Your task to perform on an android device: Open network settings Image 0: 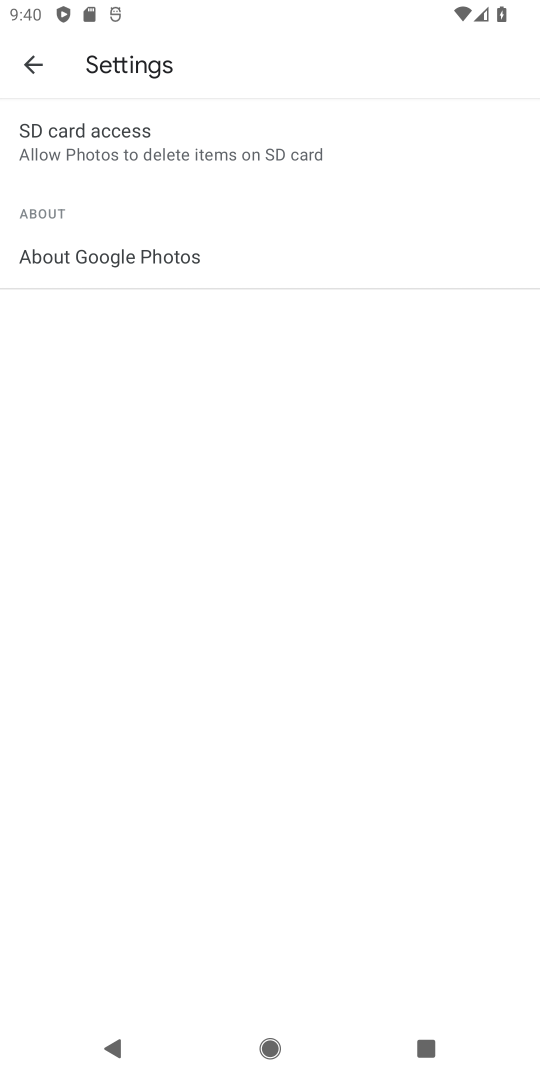
Step 0: press home button
Your task to perform on an android device: Open network settings Image 1: 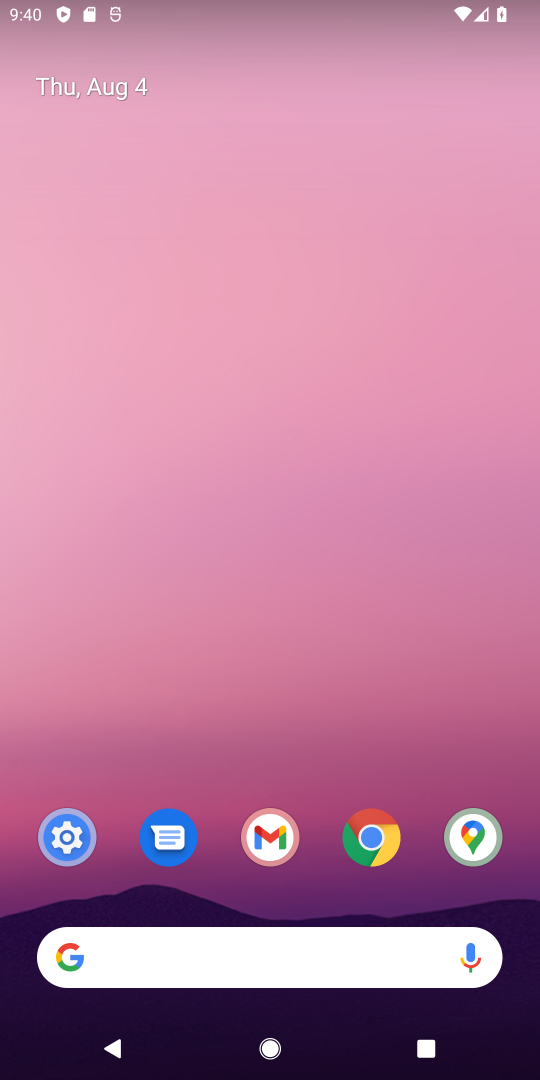
Step 1: drag from (418, 830) to (251, 108)
Your task to perform on an android device: Open network settings Image 2: 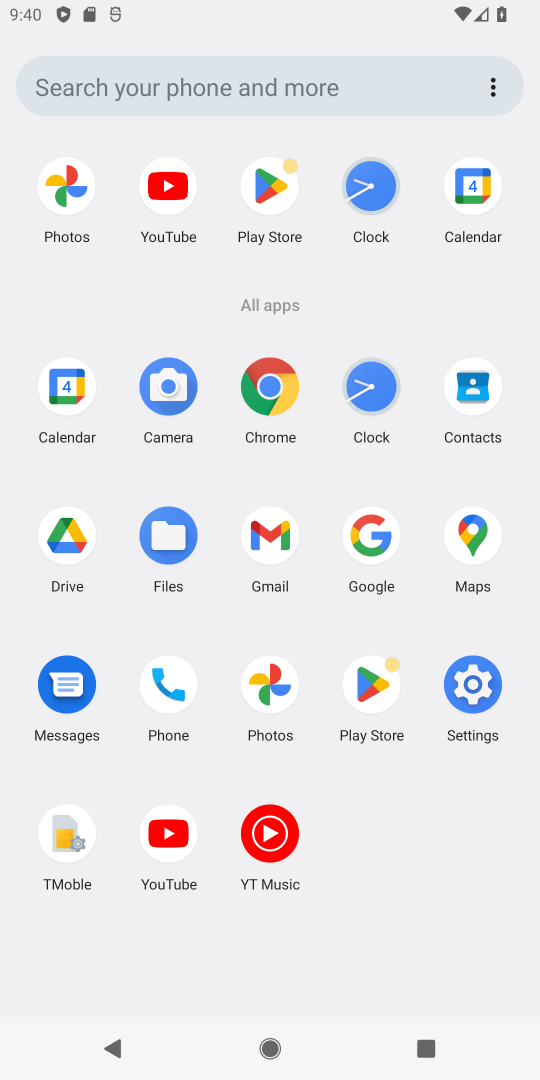
Step 2: click (496, 693)
Your task to perform on an android device: Open network settings Image 3: 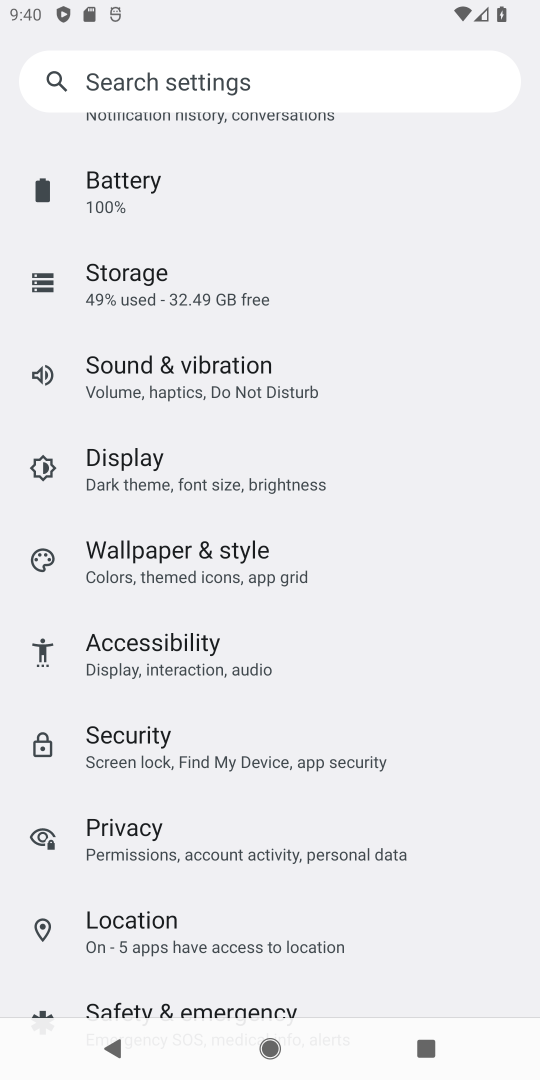
Step 3: drag from (334, 239) to (317, 820)
Your task to perform on an android device: Open network settings Image 4: 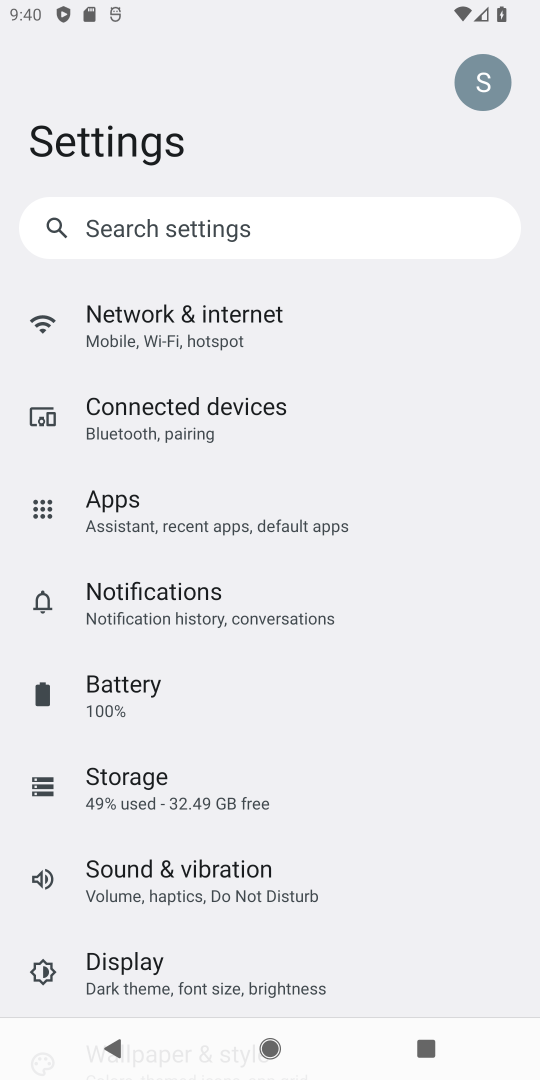
Step 4: drag from (216, 199) to (245, 832)
Your task to perform on an android device: Open network settings Image 5: 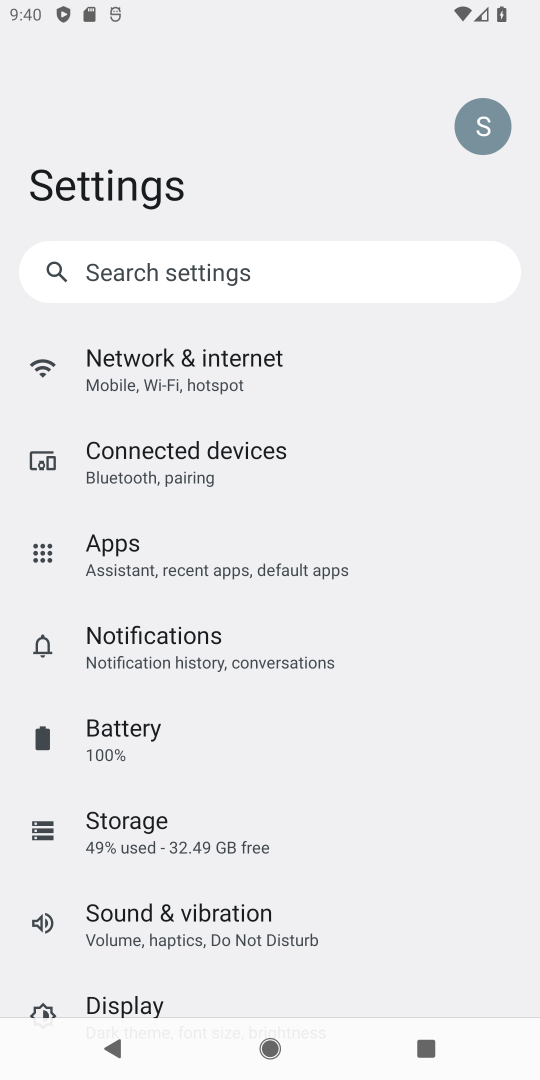
Step 5: click (225, 372)
Your task to perform on an android device: Open network settings Image 6: 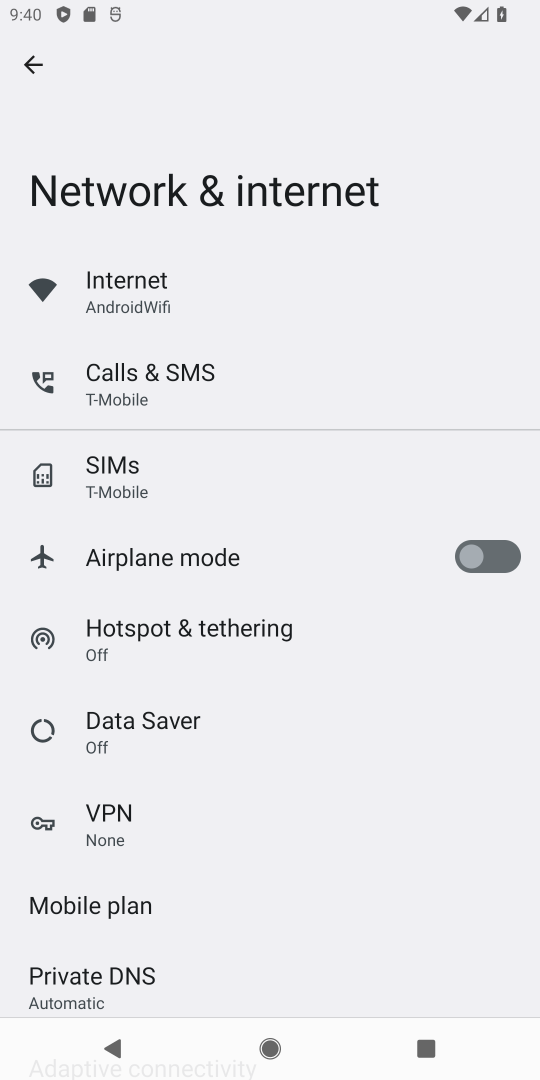
Step 6: task complete